Your task to perform on an android device: make emails show in primary in the gmail app Image 0: 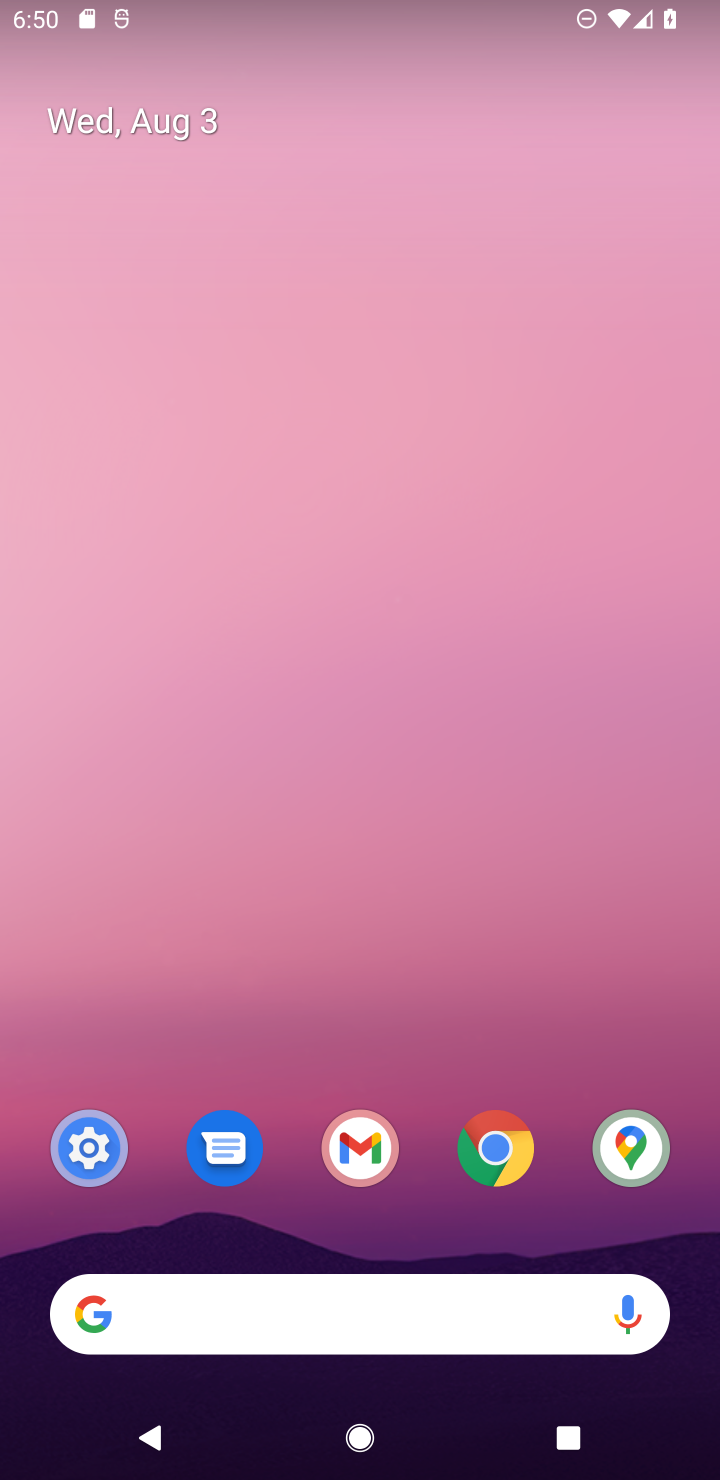
Step 0: click (373, 1136)
Your task to perform on an android device: make emails show in primary in the gmail app Image 1: 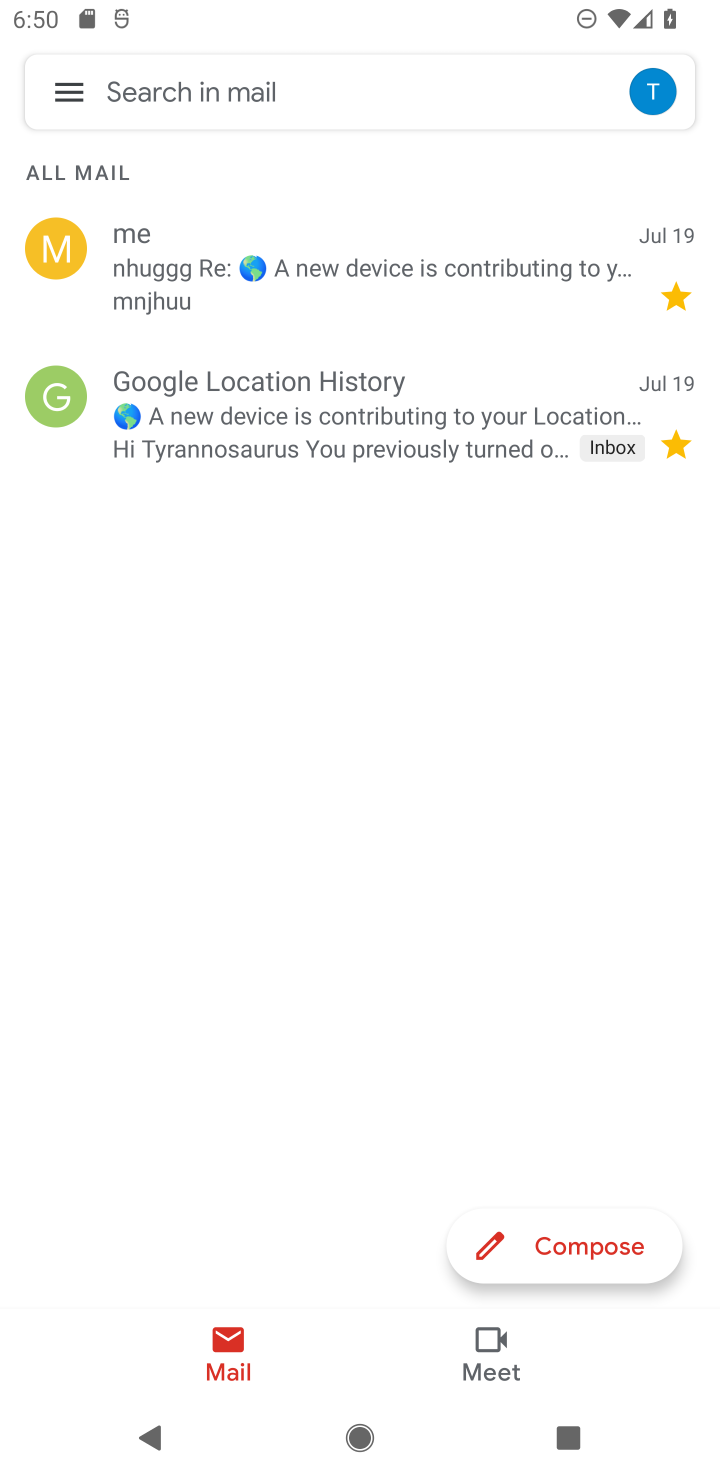
Step 1: click (67, 92)
Your task to perform on an android device: make emails show in primary in the gmail app Image 2: 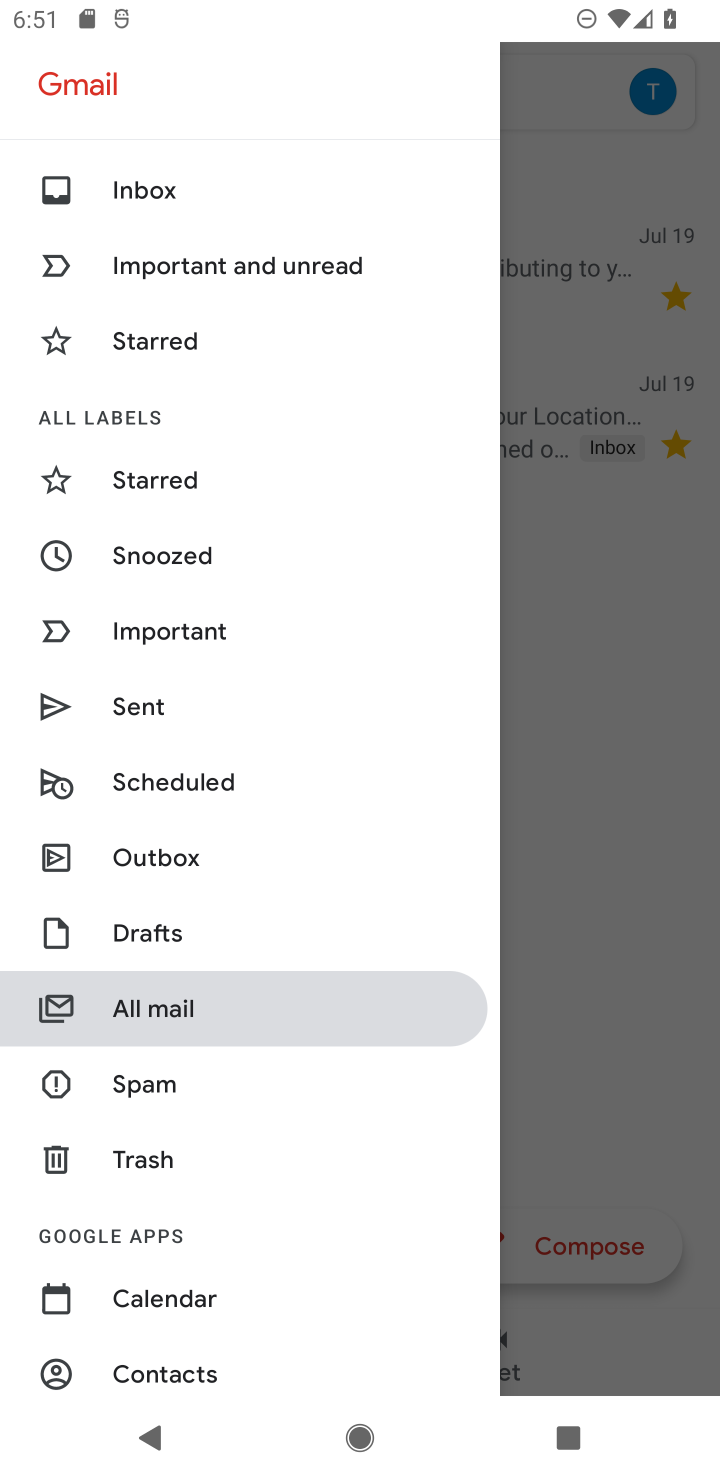
Step 2: drag from (237, 1000) to (237, 672)
Your task to perform on an android device: make emails show in primary in the gmail app Image 3: 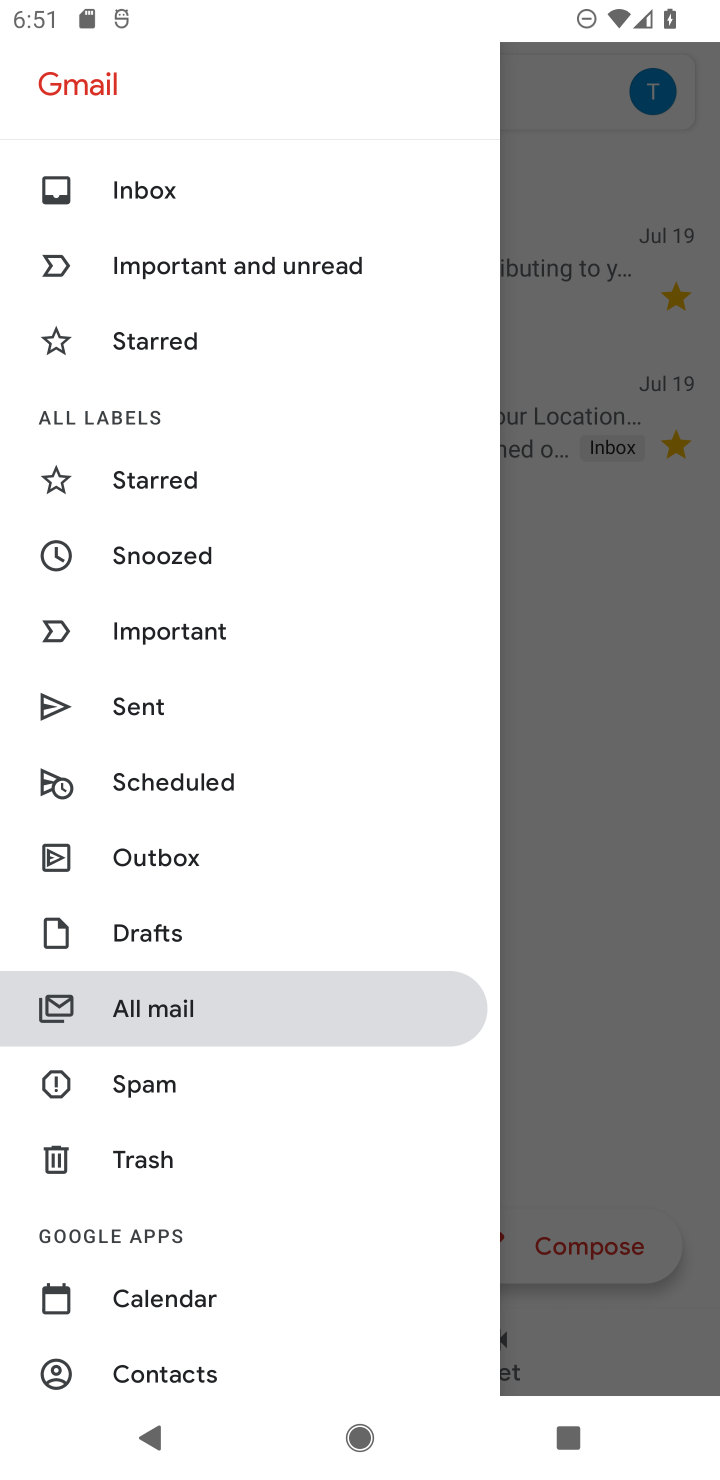
Step 3: drag from (162, 1179) to (133, 621)
Your task to perform on an android device: make emails show in primary in the gmail app Image 4: 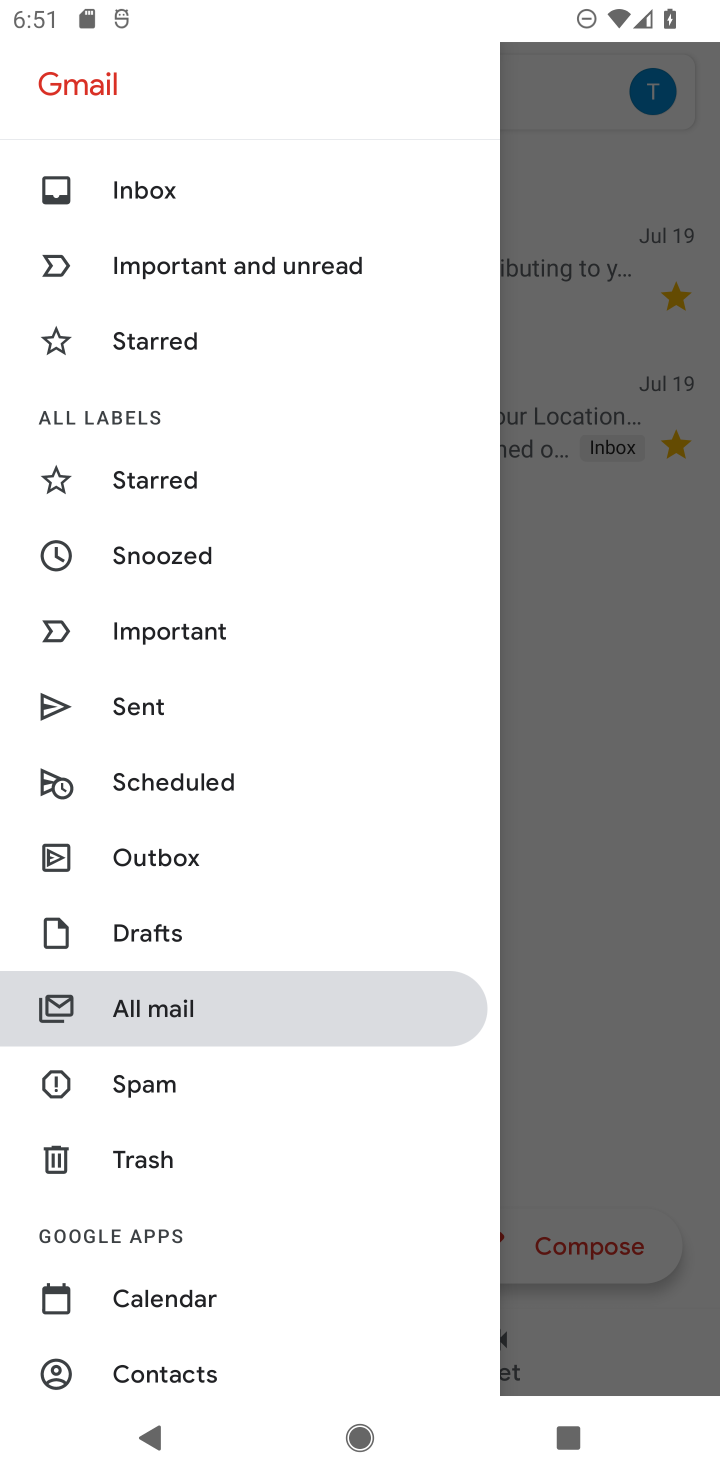
Step 4: drag from (210, 947) to (224, 455)
Your task to perform on an android device: make emails show in primary in the gmail app Image 5: 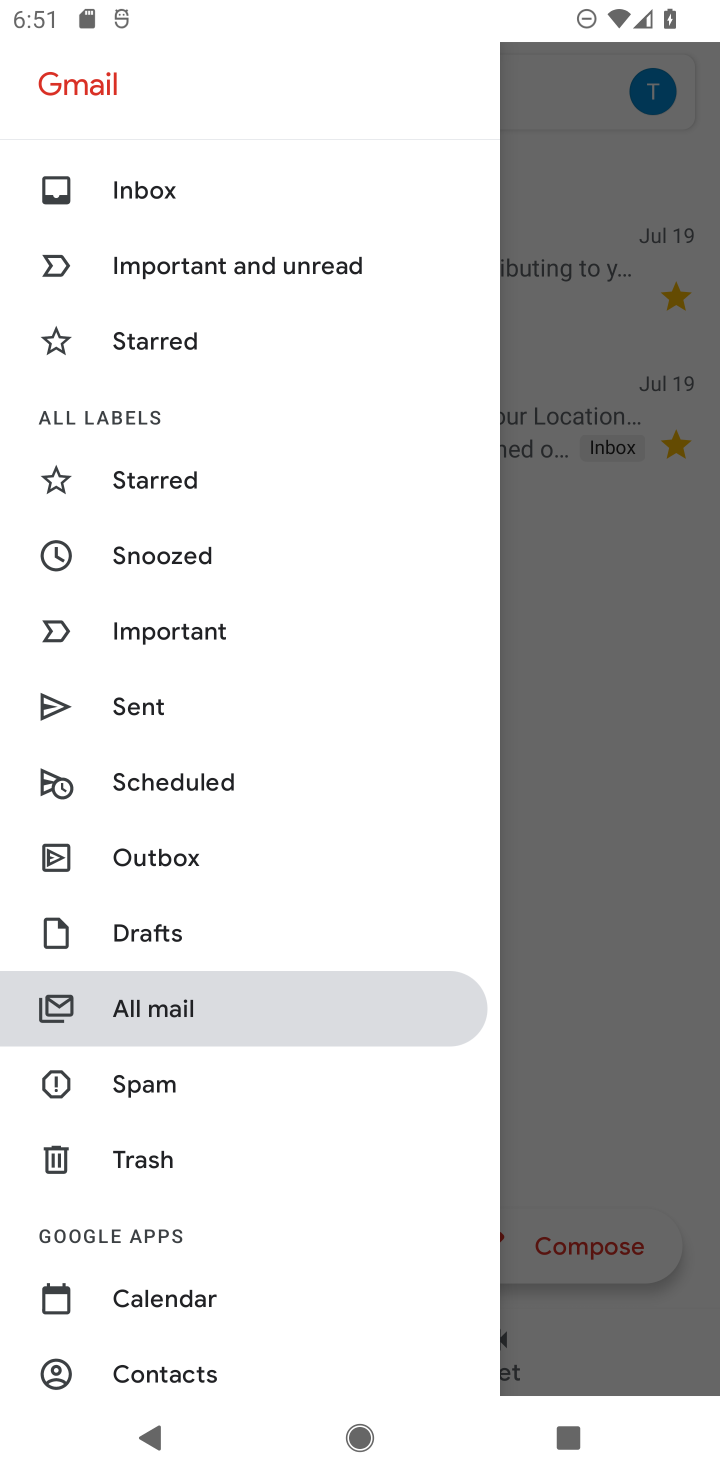
Step 5: drag from (178, 1057) to (197, 567)
Your task to perform on an android device: make emails show in primary in the gmail app Image 6: 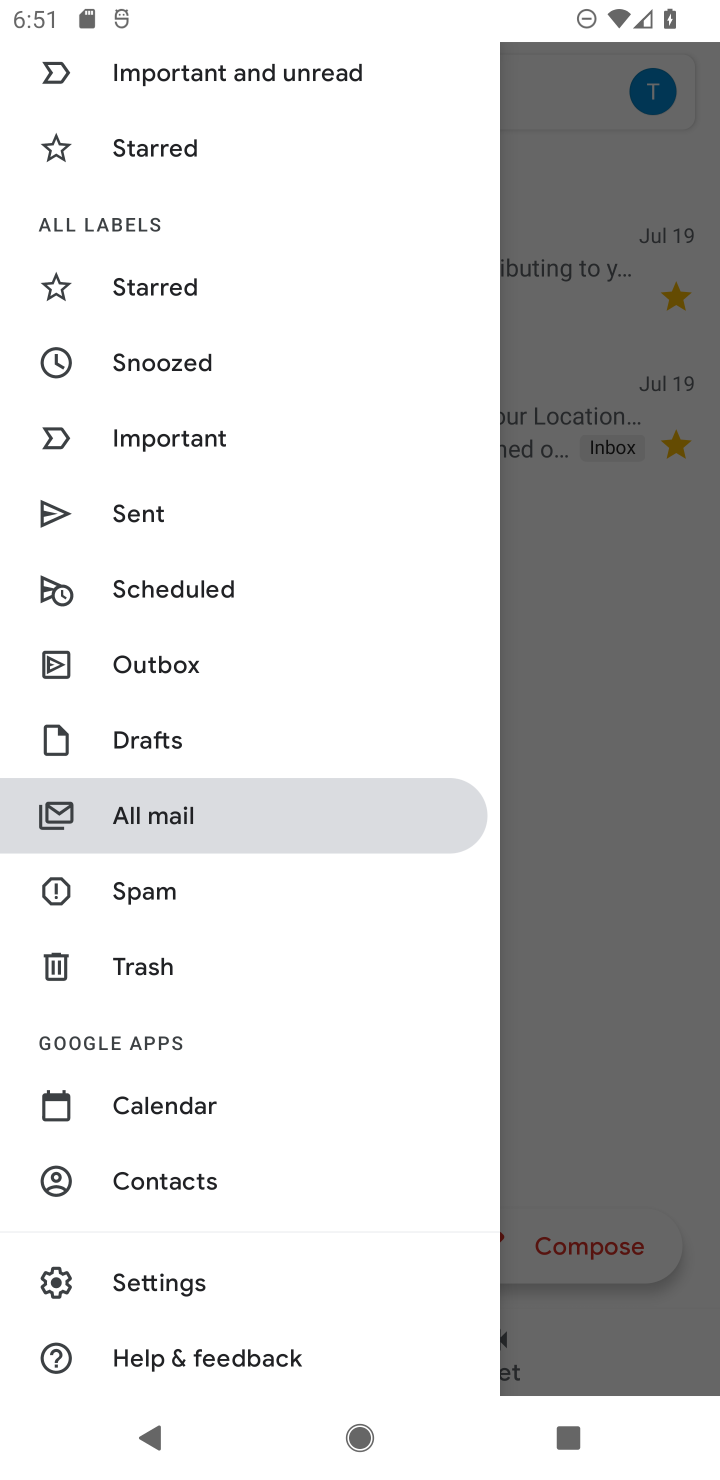
Step 6: click (145, 1266)
Your task to perform on an android device: make emails show in primary in the gmail app Image 7: 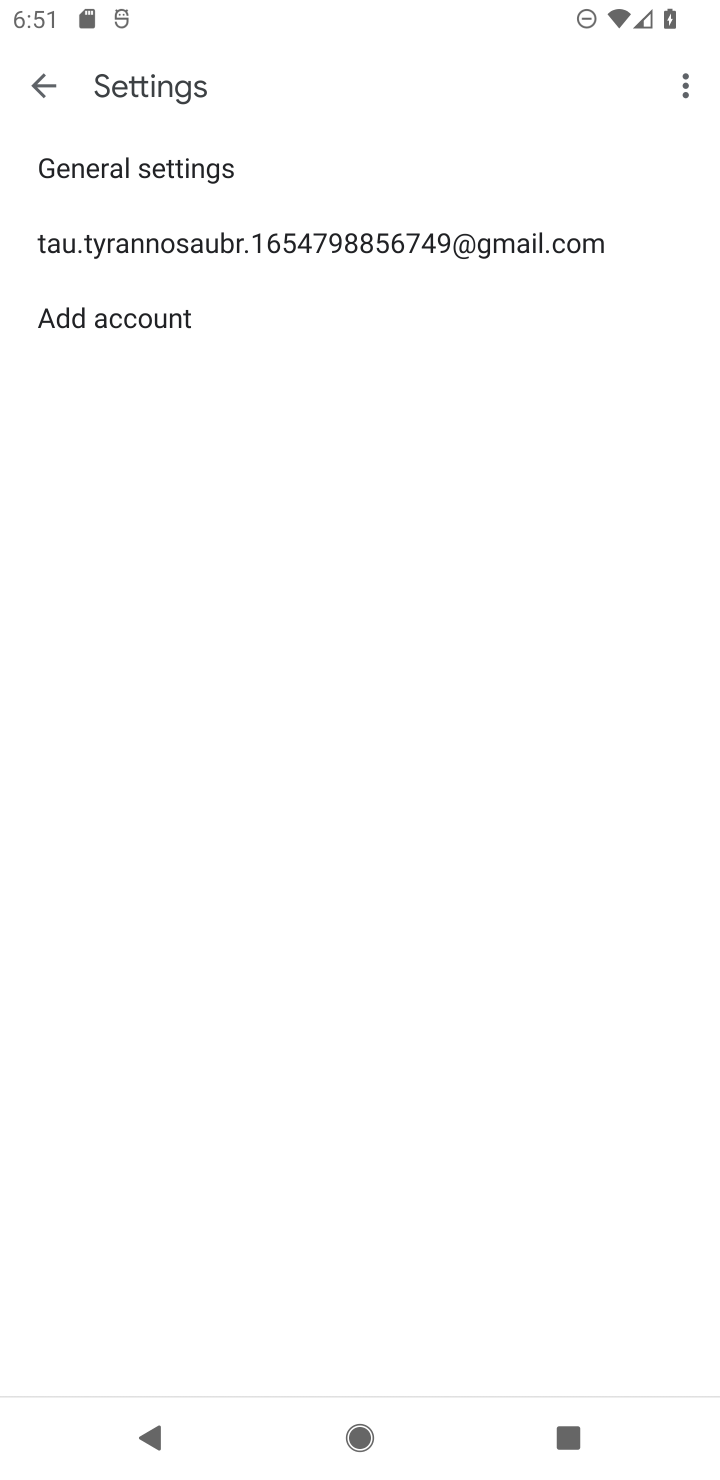
Step 7: click (247, 251)
Your task to perform on an android device: make emails show in primary in the gmail app Image 8: 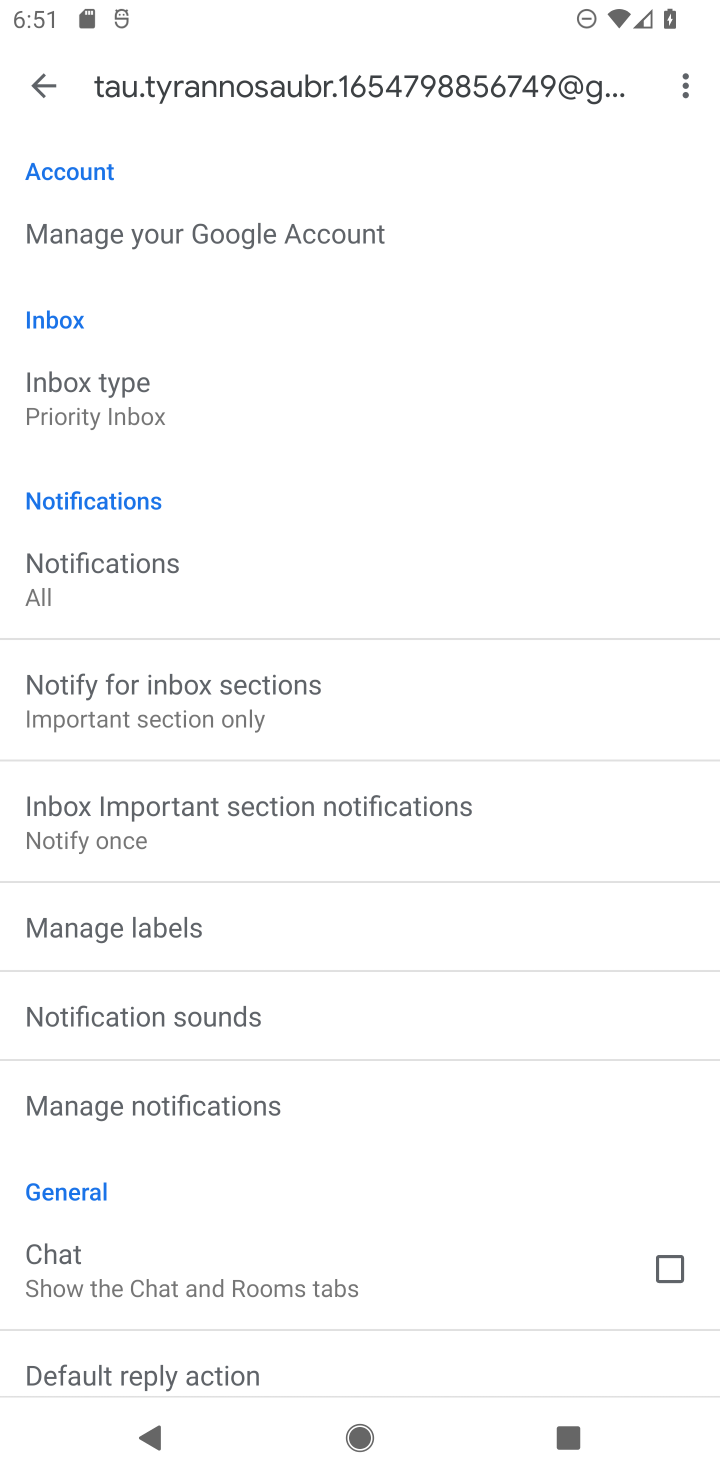
Step 8: task complete